Your task to perform on an android device: turn off airplane mode Image 0: 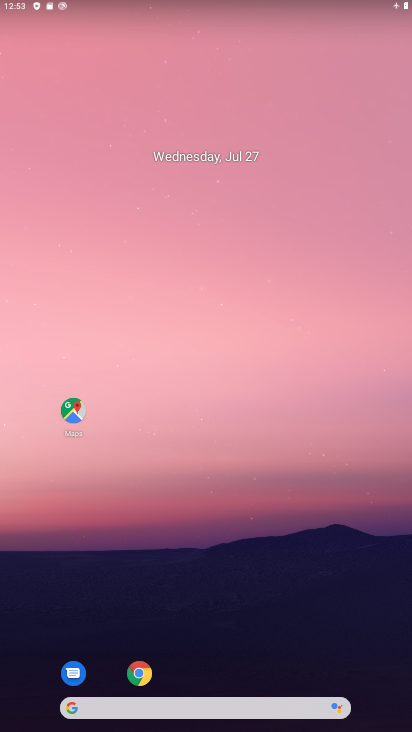
Step 0: drag from (339, 3) to (352, 542)
Your task to perform on an android device: turn off airplane mode Image 1: 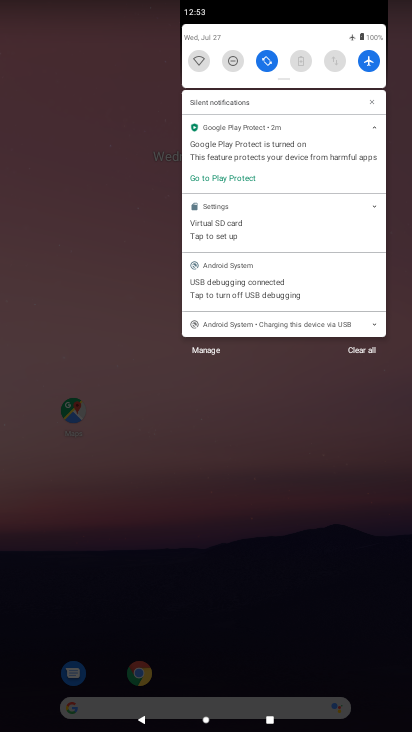
Step 1: click (371, 58)
Your task to perform on an android device: turn off airplane mode Image 2: 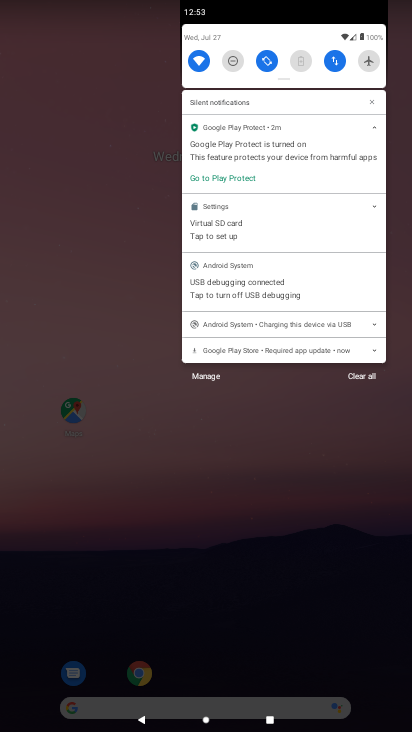
Step 2: task complete